Your task to perform on an android device: Search for Mexican restaurants on Maps Image 0: 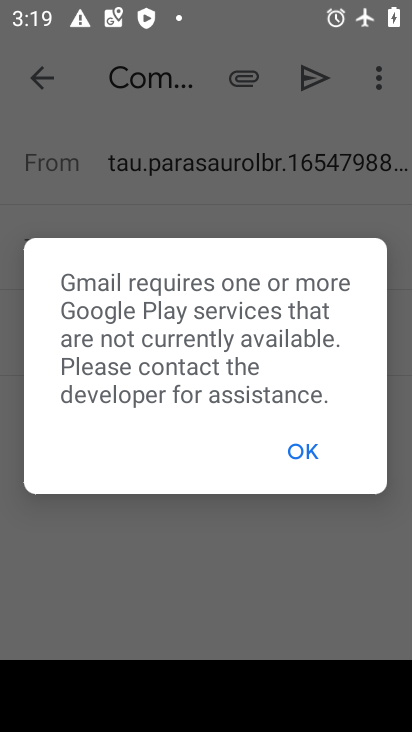
Step 0: press home button
Your task to perform on an android device: Search for Mexican restaurants on Maps Image 1: 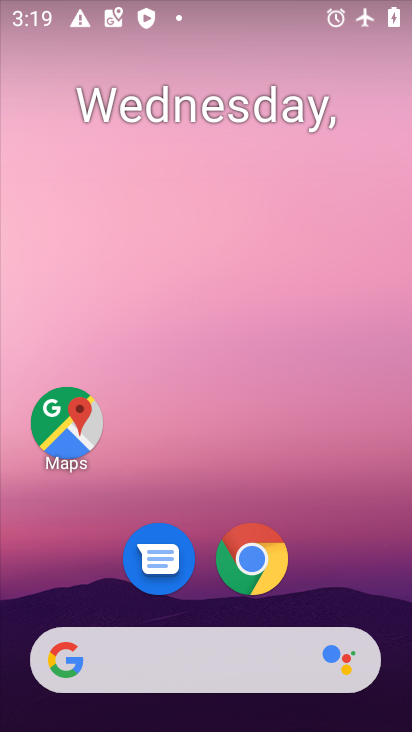
Step 1: drag from (221, 592) to (243, 86)
Your task to perform on an android device: Search for Mexican restaurants on Maps Image 2: 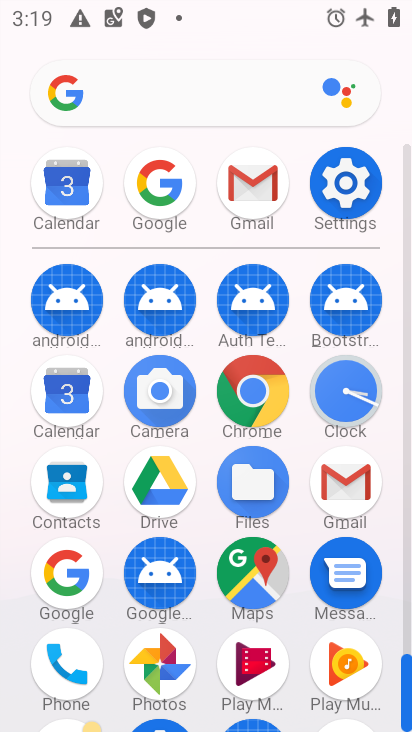
Step 2: click (252, 565)
Your task to perform on an android device: Search for Mexican restaurants on Maps Image 3: 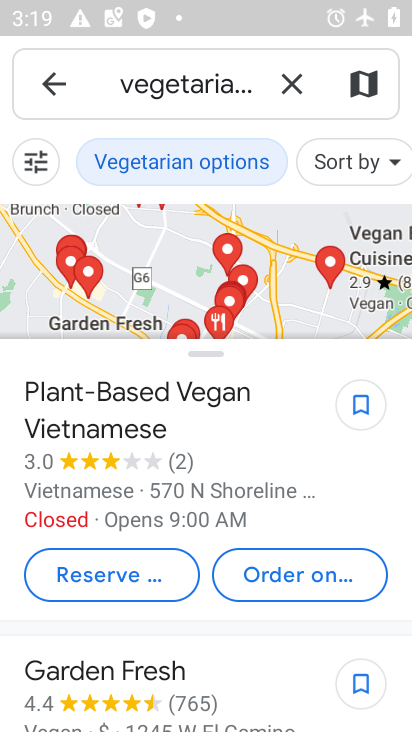
Step 3: click (285, 80)
Your task to perform on an android device: Search for Mexican restaurants on Maps Image 4: 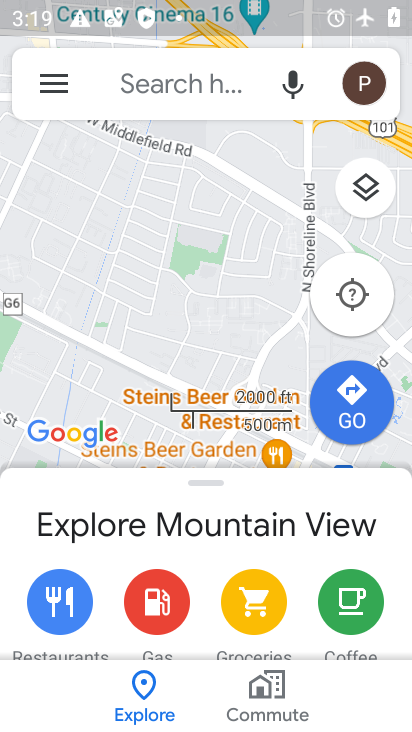
Step 4: click (169, 79)
Your task to perform on an android device: Search for Mexican restaurants on Maps Image 5: 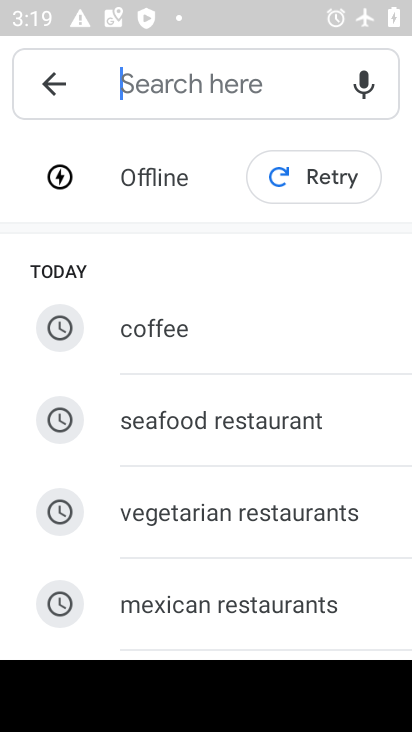
Step 5: type "Mexican restaurants"
Your task to perform on an android device: Search for Mexican restaurants on Maps Image 6: 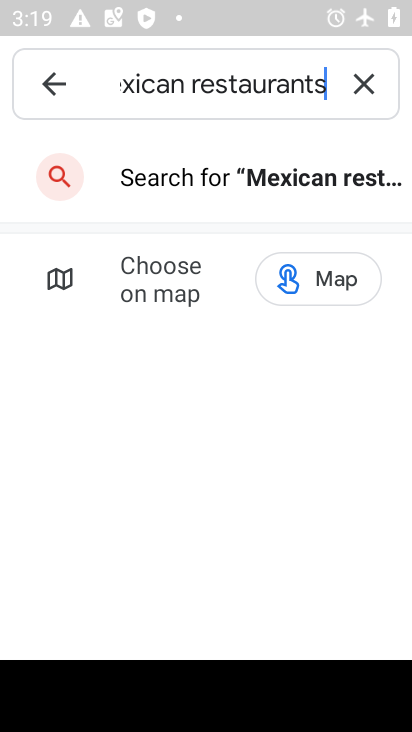
Step 6: type ""
Your task to perform on an android device: Search for Mexican restaurants on Maps Image 7: 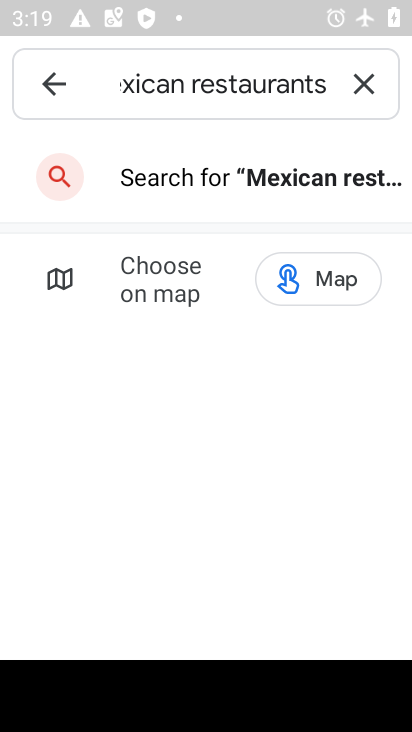
Step 7: click (272, 177)
Your task to perform on an android device: Search for Mexican restaurants on Maps Image 8: 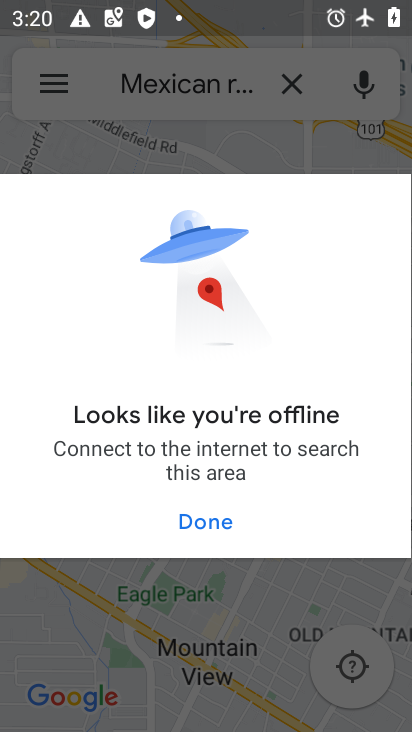
Step 8: task complete